Your task to perform on an android device: Check the news Image 0: 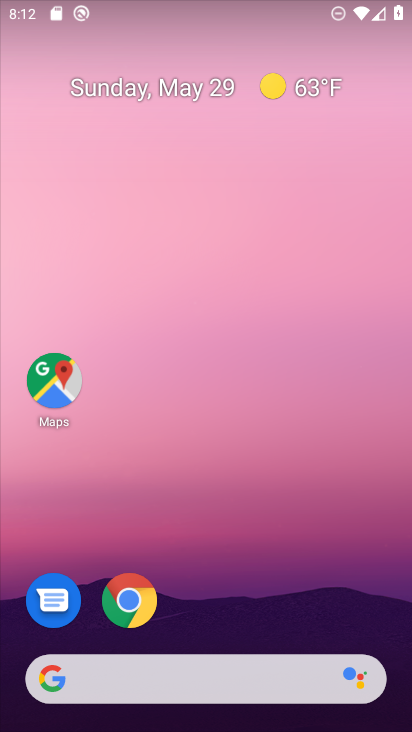
Step 0: click (134, 679)
Your task to perform on an android device: Check the news Image 1: 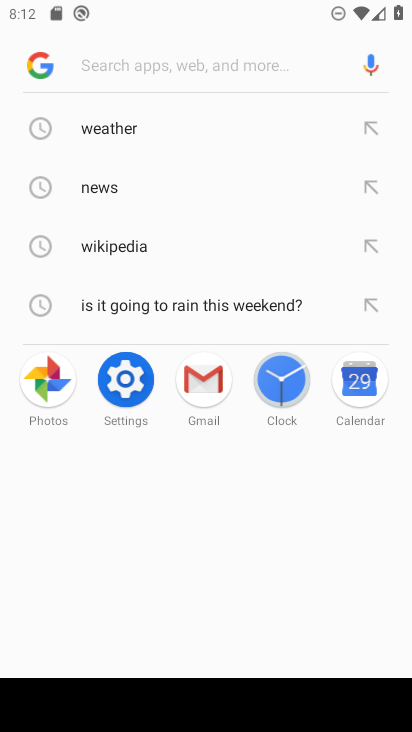
Step 1: click (153, 198)
Your task to perform on an android device: Check the news Image 2: 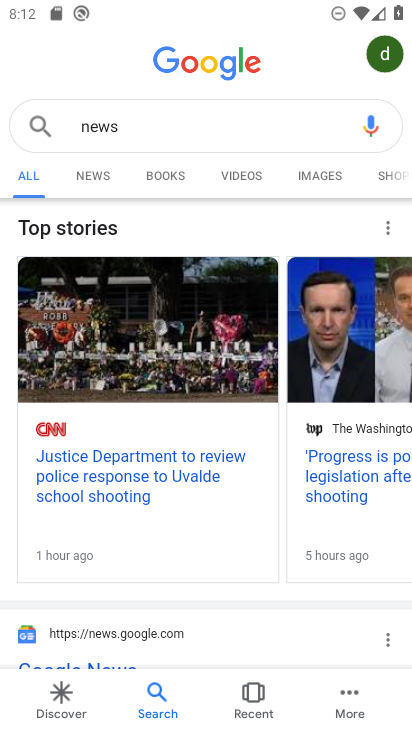
Step 2: click (227, 538)
Your task to perform on an android device: Check the news Image 3: 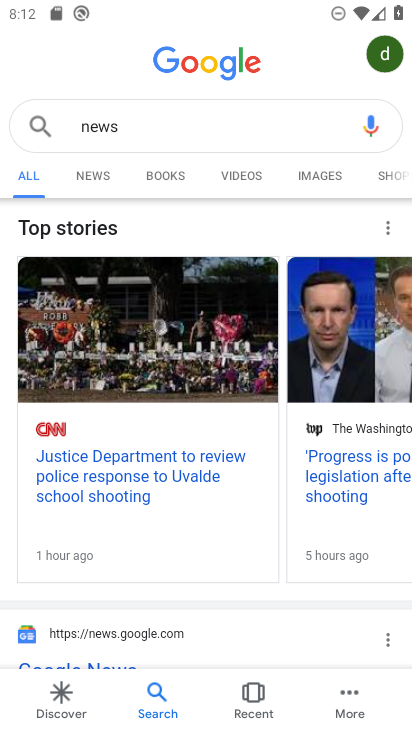
Step 3: click (197, 457)
Your task to perform on an android device: Check the news Image 4: 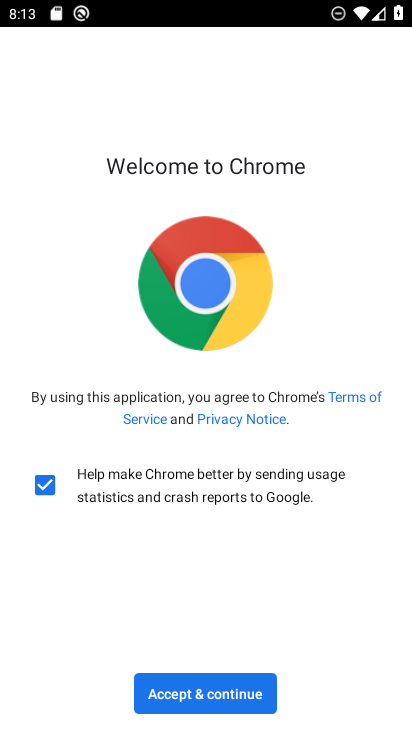
Step 4: click (209, 702)
Your task to perform on an android device: Check the news Image 5: 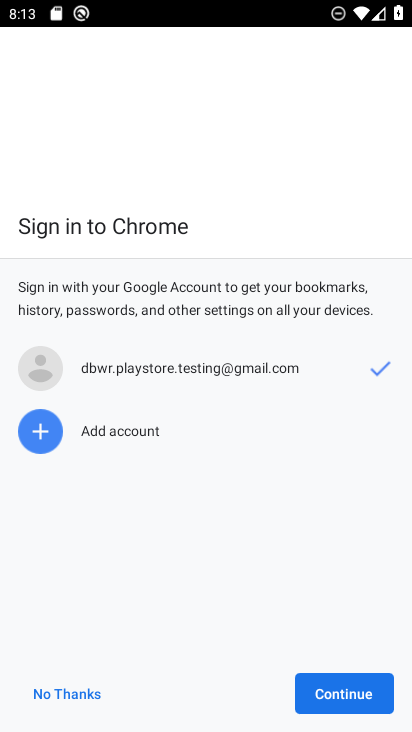
Step 5: click (341, 712)
Your task to perform on an android device: Check the news Image 6: 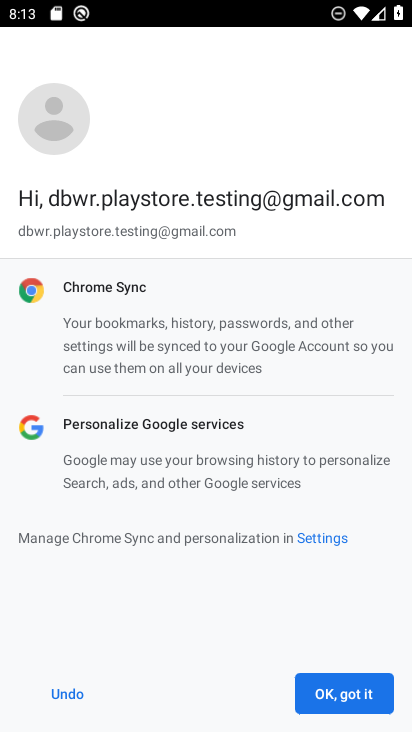
Step 6: click (337, 707)
Your task to perform on an android device: Check the news Image 7: 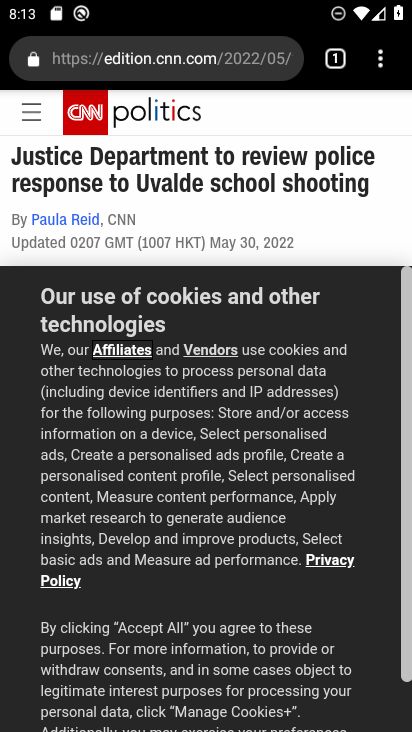
Step 7: drag from (334, 613) to (319, 249)
Your task to perform on an android device: Check the news Image 8: 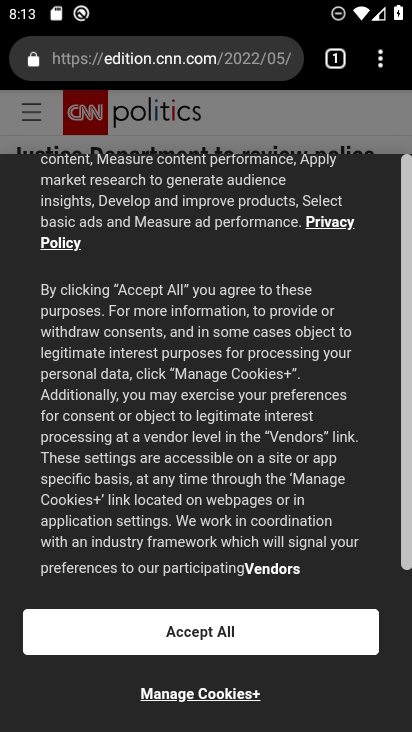
Step 8: click (259, 630)
Your task to perform on an android device: Check the news Image 9: 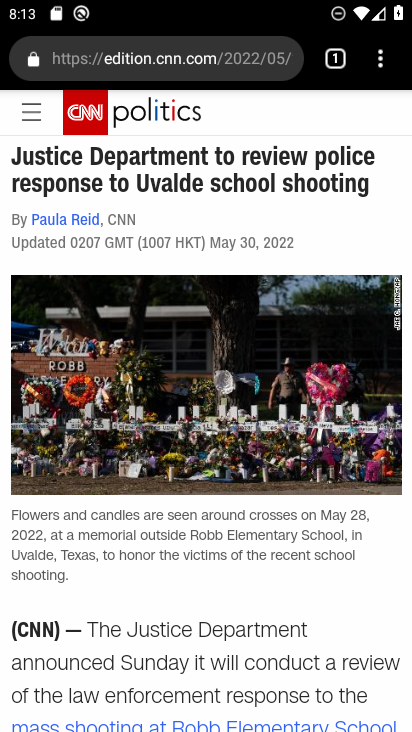
Step 9: task complete